Your task to perform on an android device: open chrome and create a bookmark for the current page Image 0: 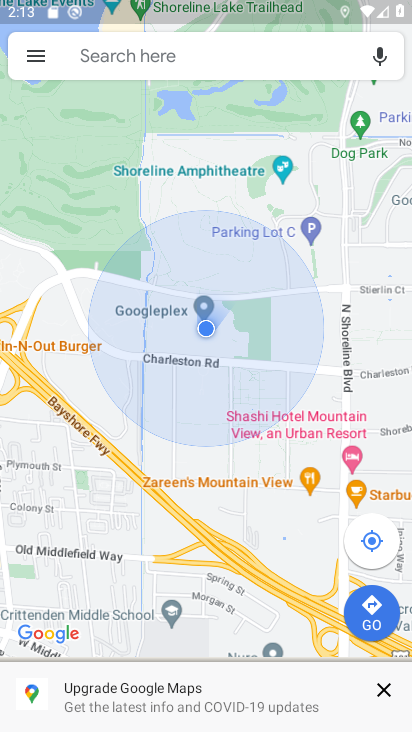
Step 0: press home button
Your task to perform on an android device: open chrome and create a bookmark for the current page Image 1: 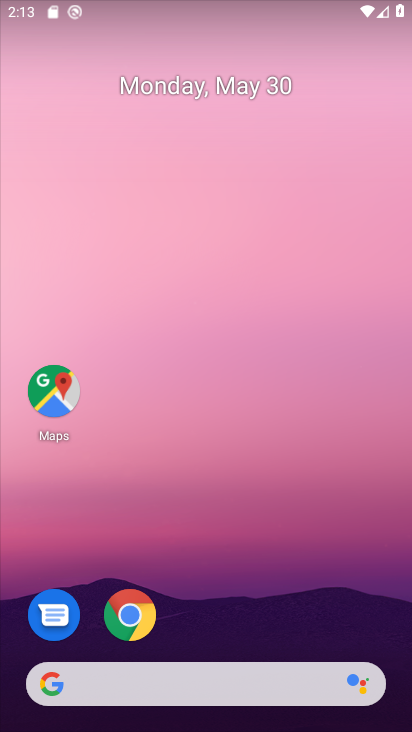
Step 1: click (139, 611)
Your task to perform on an android device: open chrome and create a bookmark for the current page Image 2: 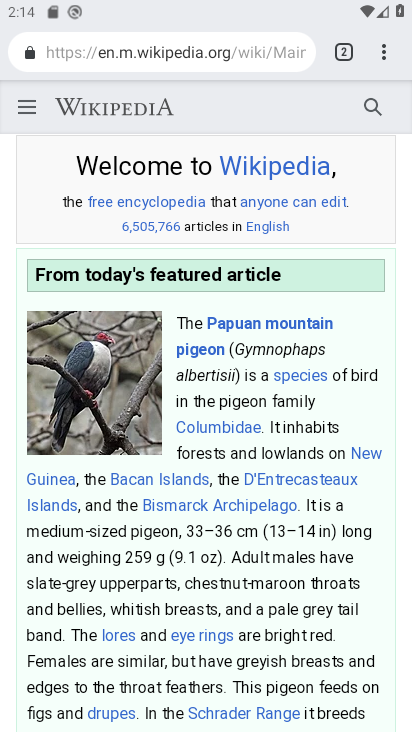
Step 2: click (379, 55)
Your task to perform on an android device: open chrome and create a bookmark for the current page Image 3: 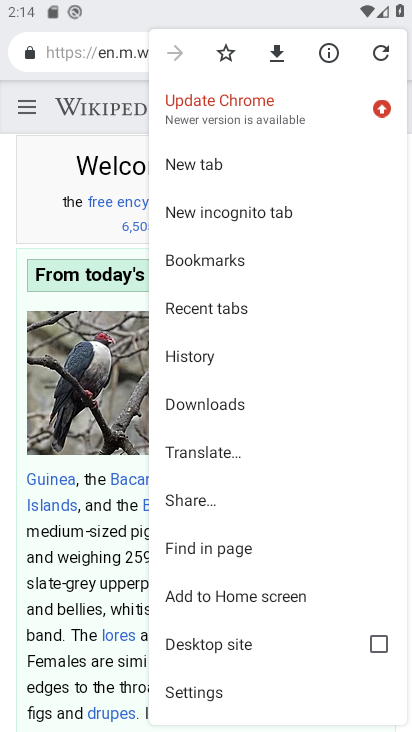
Step 3: click (228, 52)
Your task to perform on an android device: open chrome and create a bookmark for the current page Image 4: 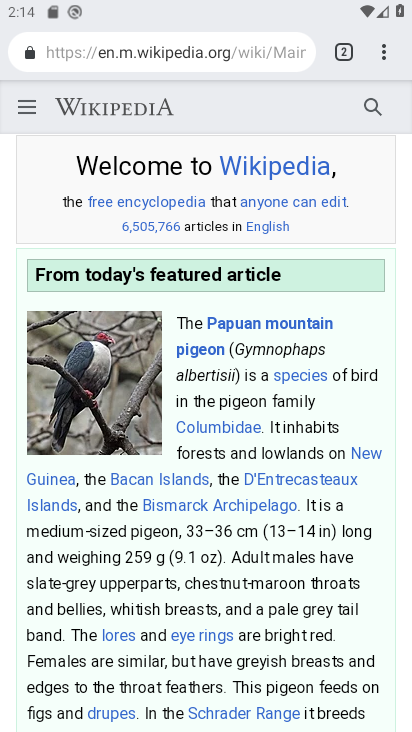
Step 4: task complete